Your task to perform on an android device: Open Google Chrome and open the bookmarks view Image 0: 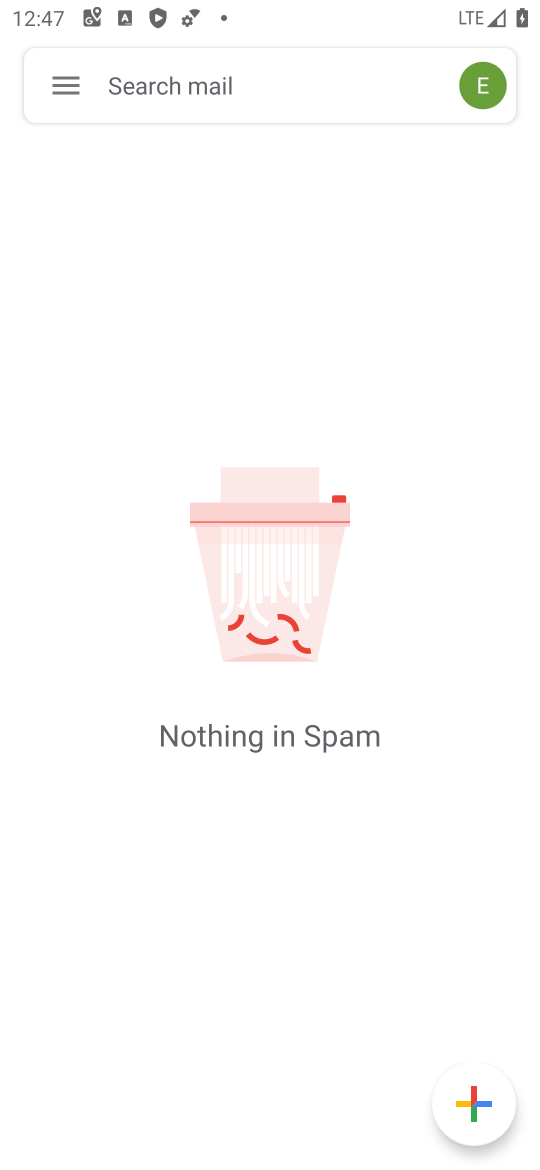
Step 0: press home button
Your task to perform on an android device: Open Google Chrome and open the bookmarks view Image 1: 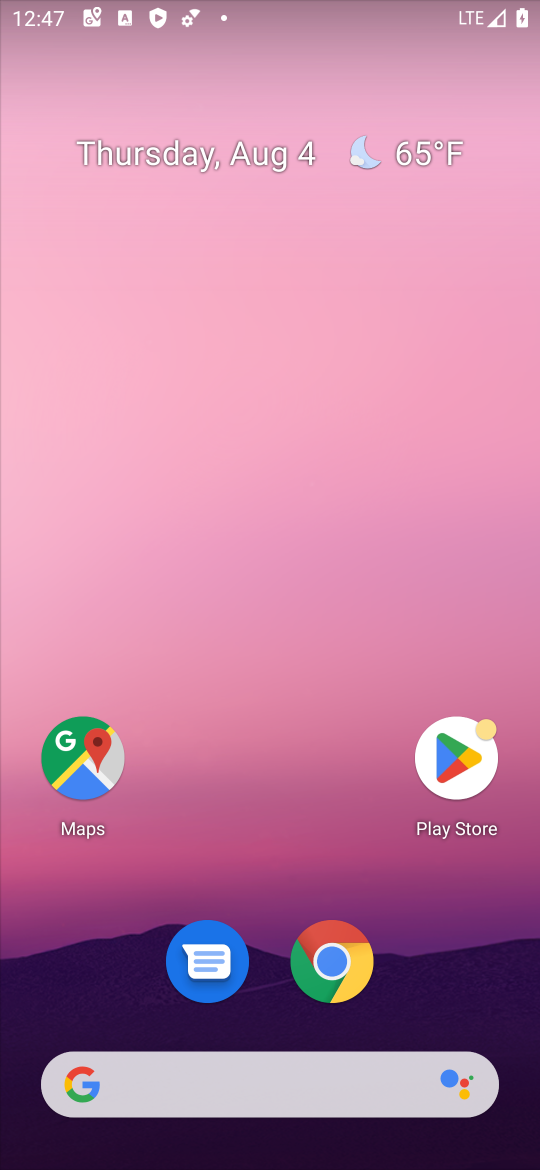
Step 1: click (343, 960)
Your task to perform on an android device: Open Google Chrome and open the bookmarks view Image 2: 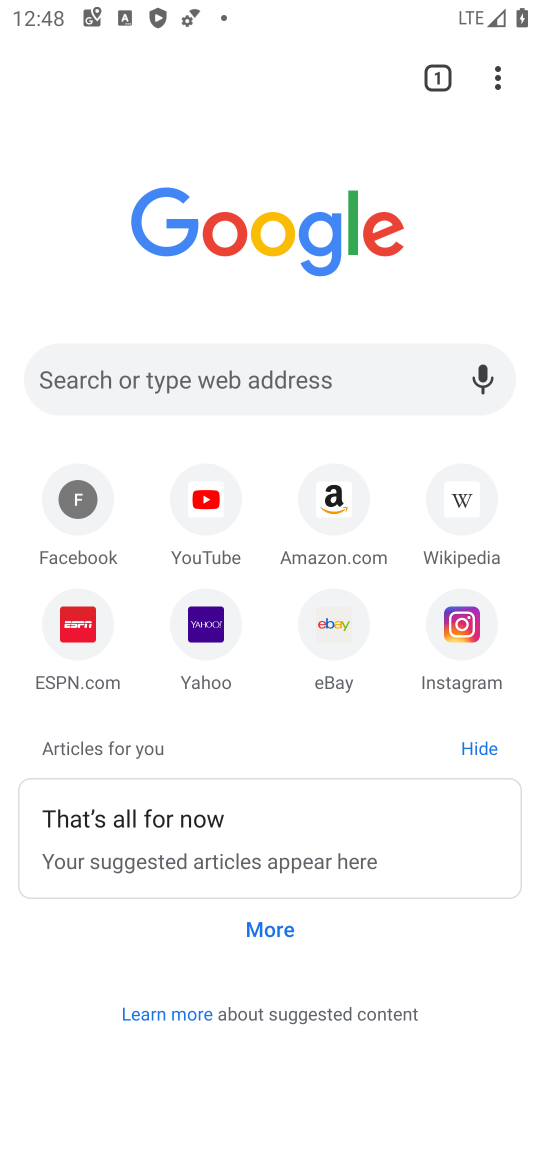
Step 2: click (492, 82)
Your task to perform on an android device: Open Google Chrome and open the bookmarks view Image 3: 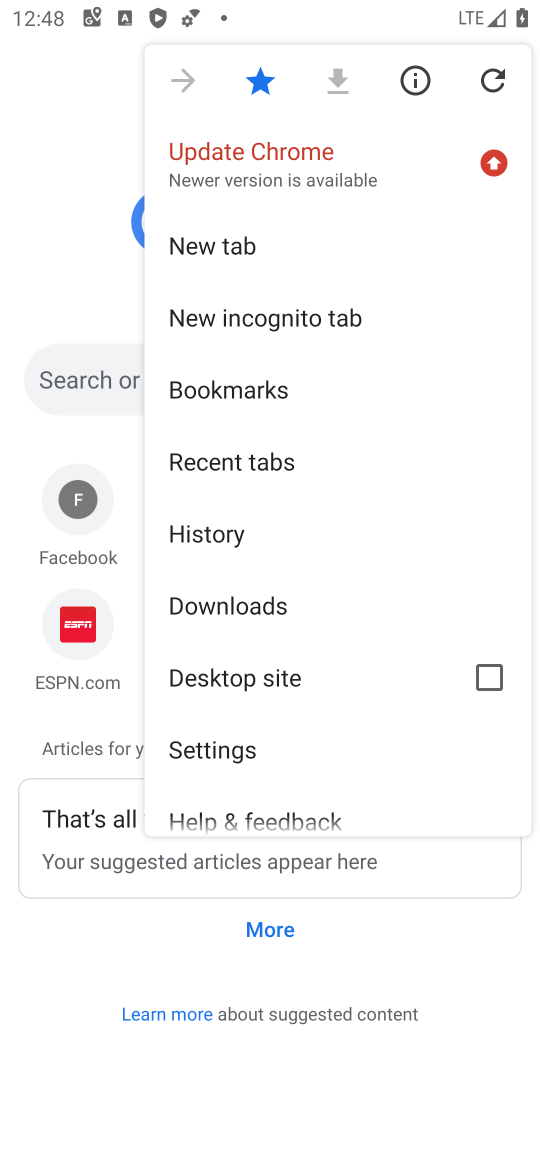
Step 3: click (256, 383)
Your task to perform on an android device: Open Google Chrome and open the bookmarks view Image 4: 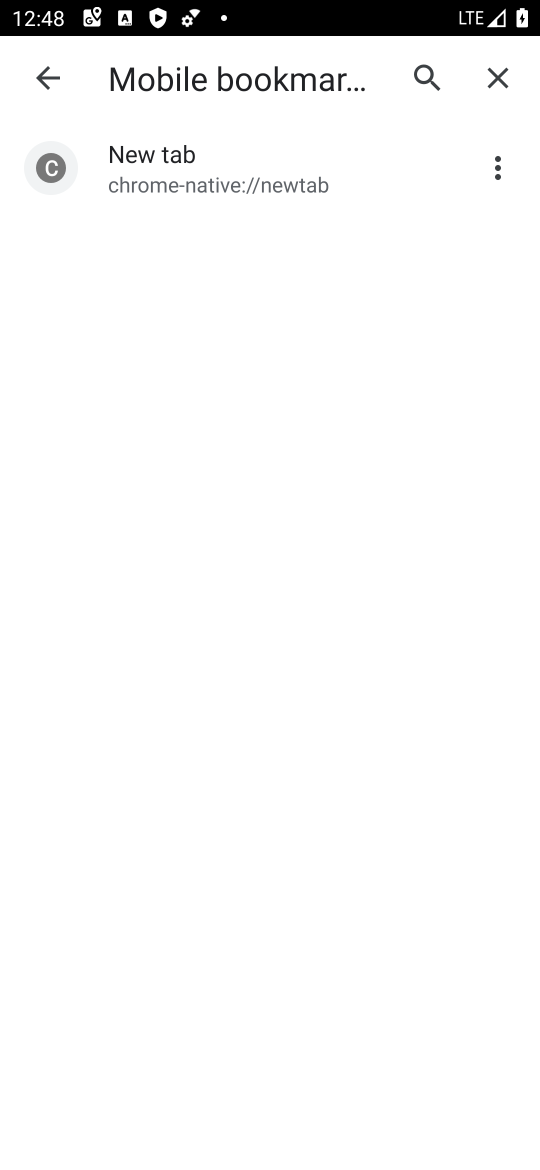
Step 4: task complete